Your task to perform on an android device: delete location history Image 0: 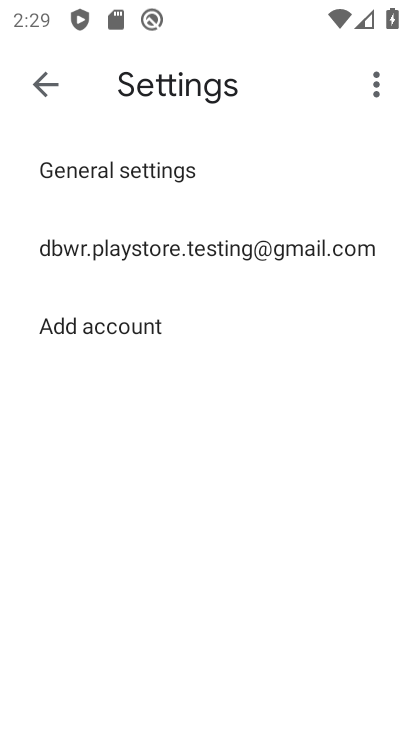
Step 0: press home button
Your task to perform on an android device: delete location history Image 1: 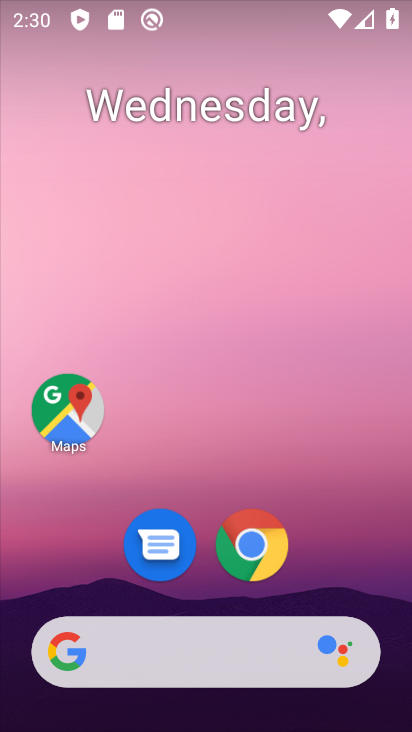
Step 1: click (74, 435)
Your task to perform on an android device: delete location history Image 2: 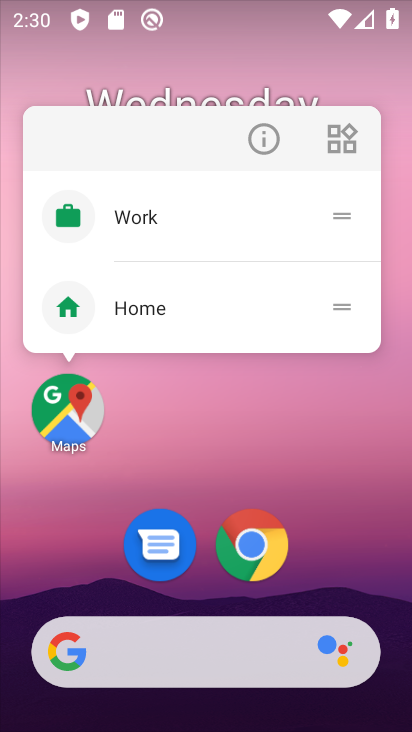
Step 2: click (69, 418)
Your task to perform on an android device: delete location history Image 3: 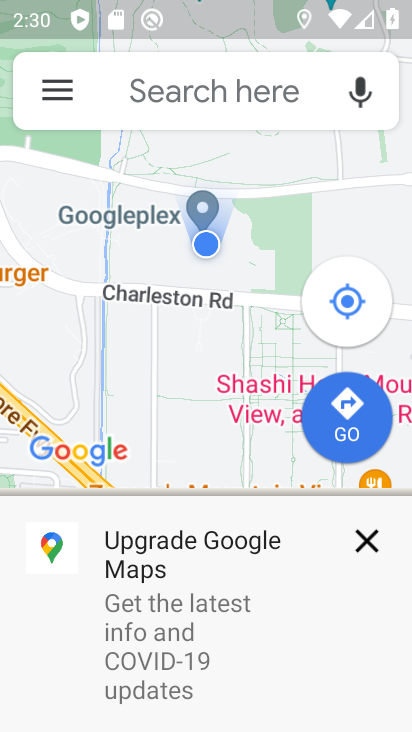
Step 3: click (65, 83)
Your task to perform on an android device: delete location history Image 4: 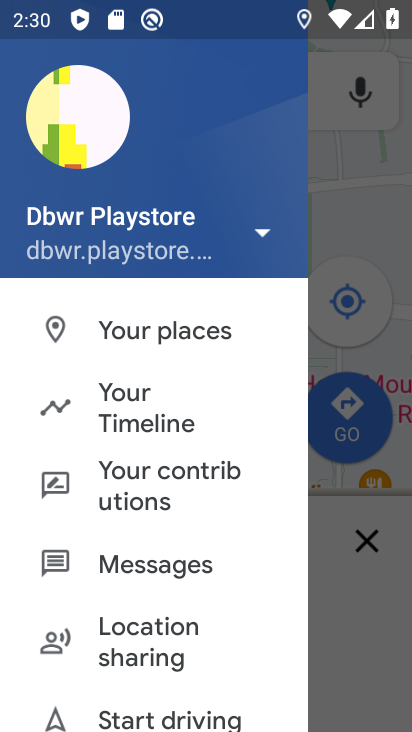
Step 4: click (149, 413)
Your task to perform on an android device: delete location history Image 5: 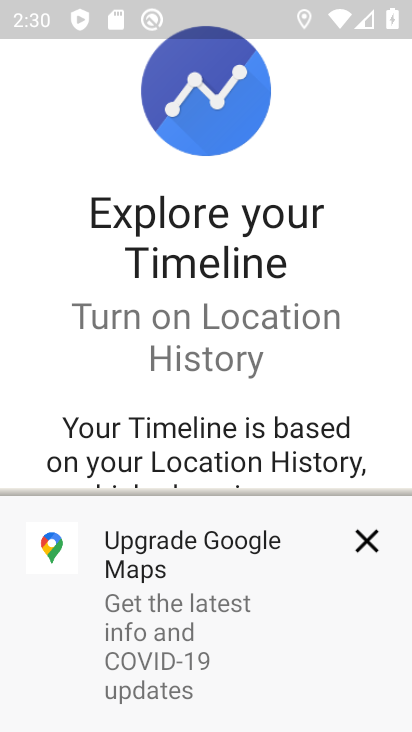
Step 5: click (369, 539)
Your task to perform on an android device: delete location history Image 6: 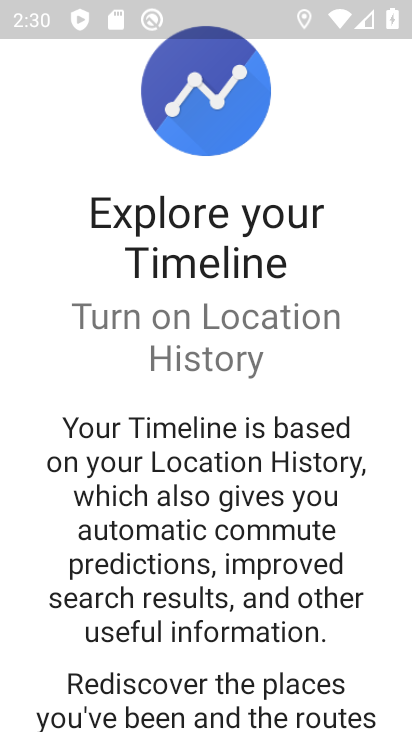
Step 6: drag from (287, 578) to (354, 64)
Your task to perform on an android device: delete location history Image 7: 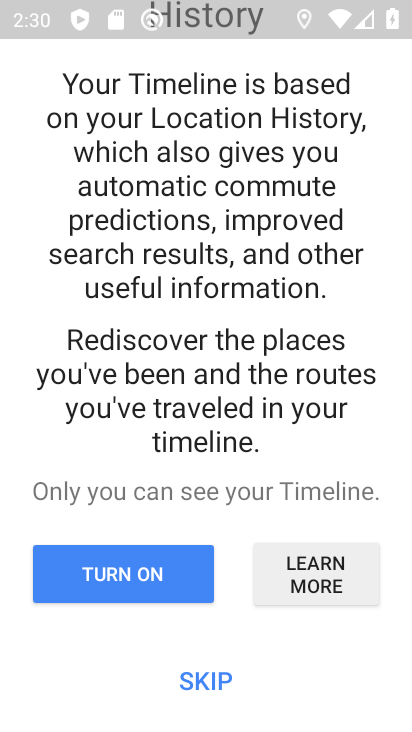
Step 7: click (222, 674)
Your task to perform on an android device: delete location history Image 8: 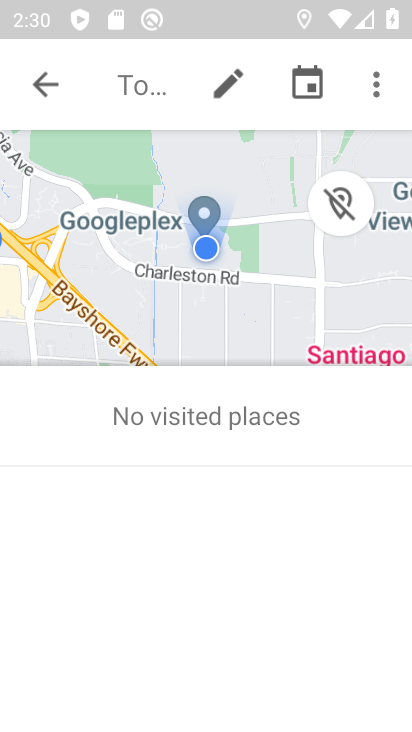
Step 8: click (377, 88)
Your task to perform on an android device: delete location history Image 9: 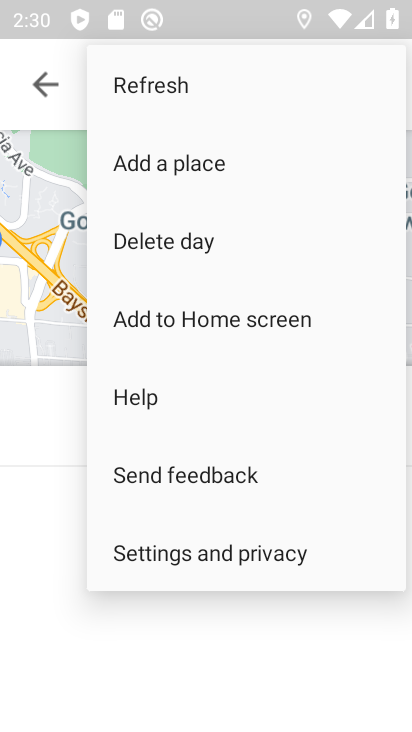
Step 9: click (210, 547)
Your task to perform on an android device: delete location history Image 10: 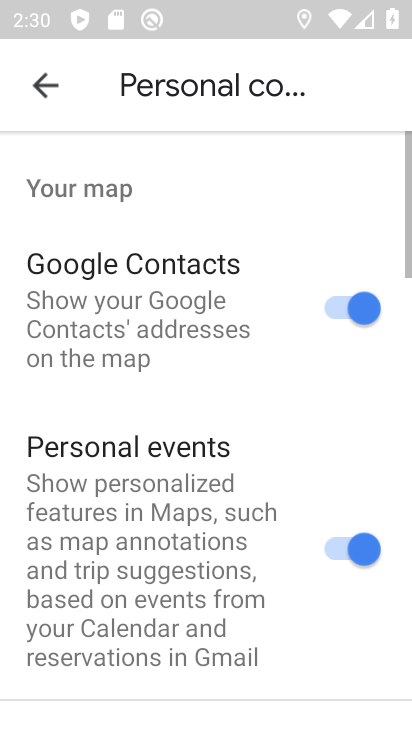
Step 10: drag from (159, 618) to (309, 144)
Your task to perform on an android device: delete location history Image 11: 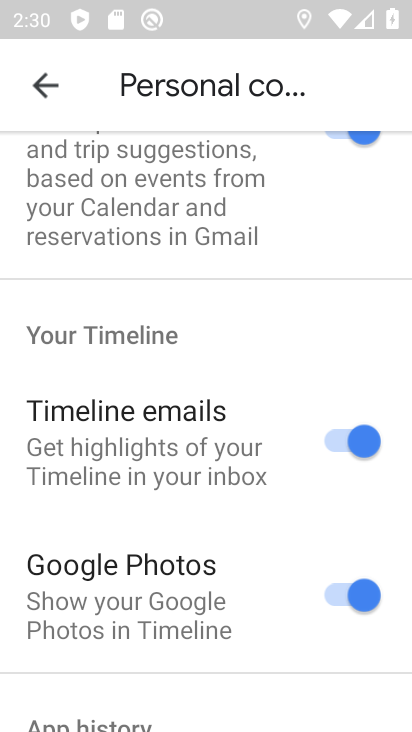
Step 11: drag from (171, 611) to (281, 134)
Your task to perform on an android device: delete location history Image 12: 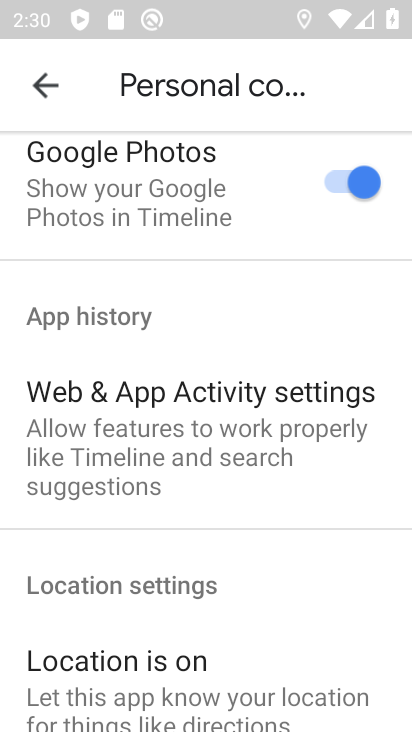
Step 12: drag from (211, 618) to (317, 176)
Your task to perform on an android device: delete location history Image 13: 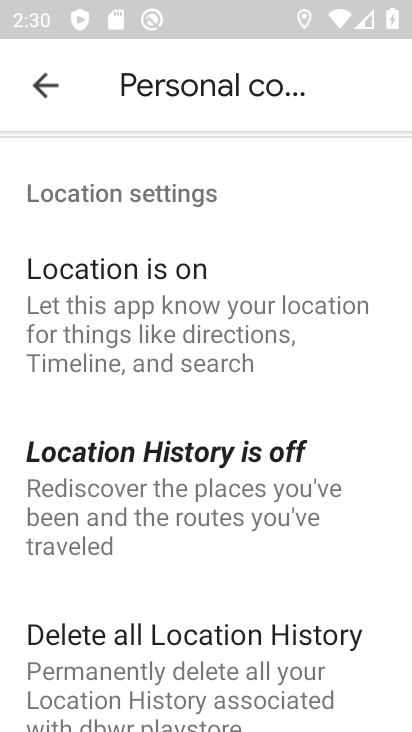
Step 13: drag from (231, 572) to (324, 242)
Your task to perform on an android device: delete location history Image 14: 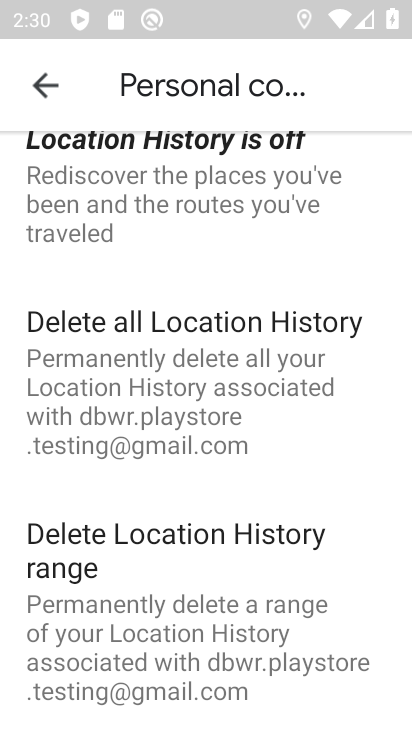
Step 14: click (228, 413)
Your task to perform on an android device: delete location history Image 15: 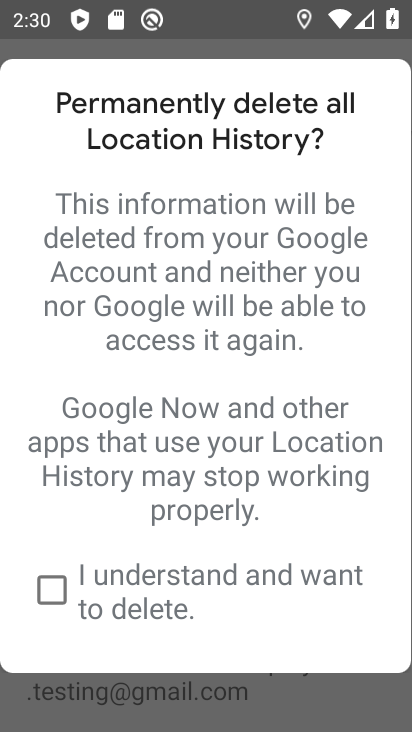
Step 15: click (56, 592)
Your task to perform on an android device: delete location history Image 16: 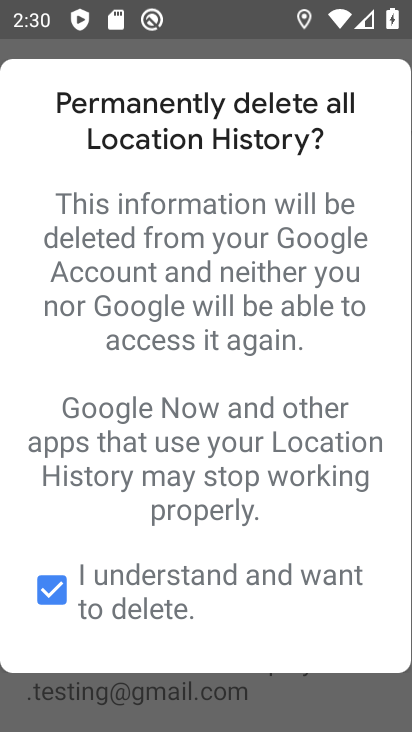
Step 16: task complete